Your task to perform on an android device: Open the calendar and show me this week's events? Image 0: 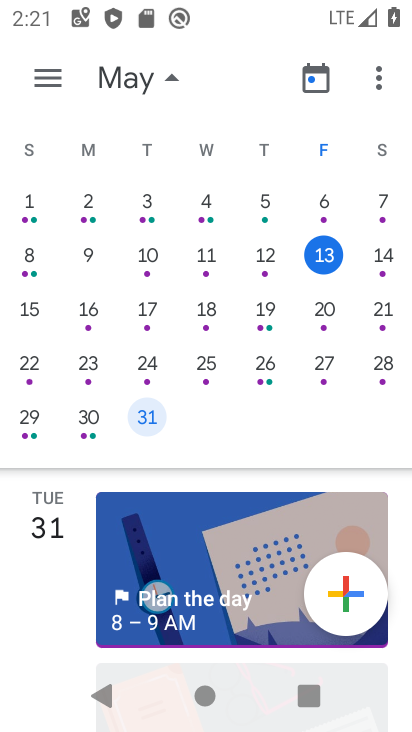
Step 0: press home button
Your task to perform on an android device: Open the calendar and show me this week's events? Image 1: 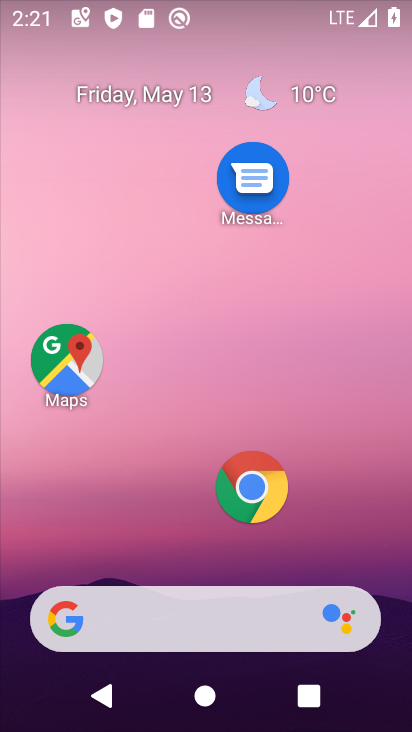
Step 1: drag from (200, 477) to (243, 112)
Your task to perform on an android device: Open the calendar and show me this week's events? Image 2: 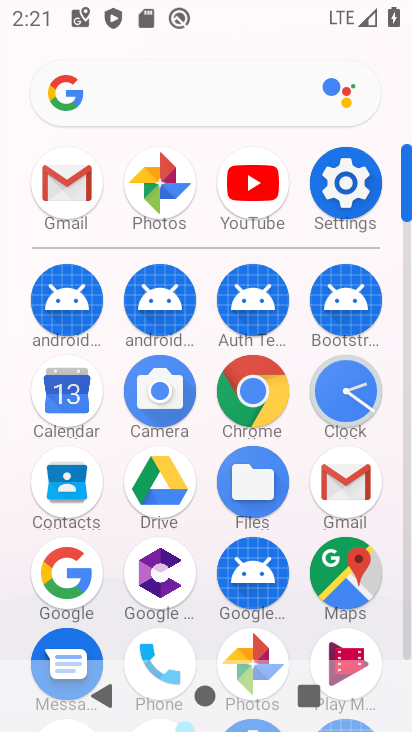
Step 2: click (76, 396)
Your task to perform on an android device: Open the calendar and show me this week's events? Image 3: 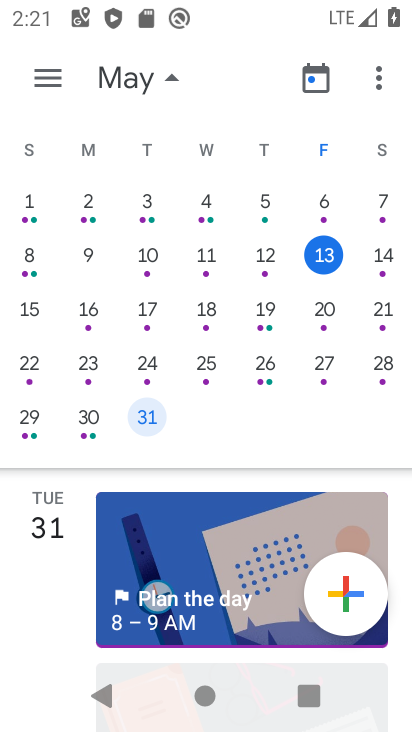
Step 3: click (30, 317)
Your task to perform on an android device: Open the calendar and show me this week's events? Image 4: 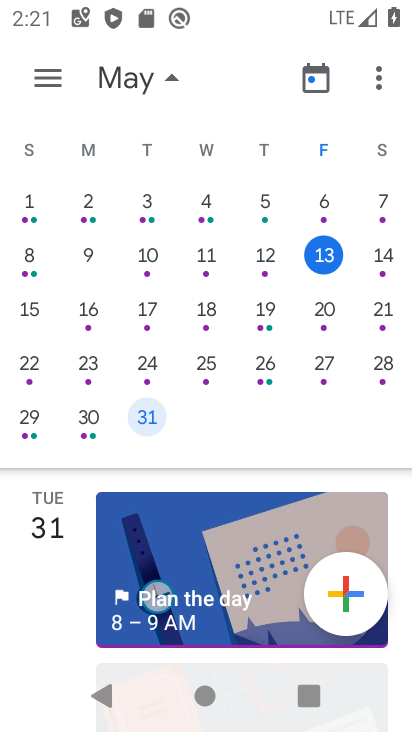
Step 4: click (85, 306)
Your task to perform on an android device: Open the calendar and show me this week's events? Image 5: 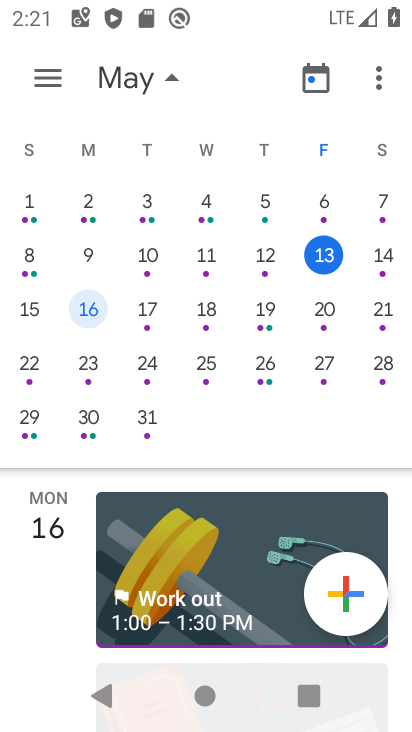
Step 5: click (143, 313)
Your task to perform on an android device: Open the calendar and show me this week's events? Image 6: 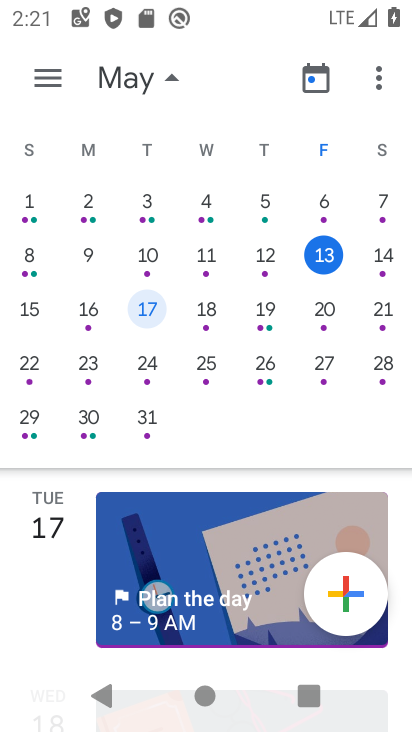
Step 6: click (192, 316)
Your task to perform on an android device: Open the calendar and show me this week's events? Image 7: 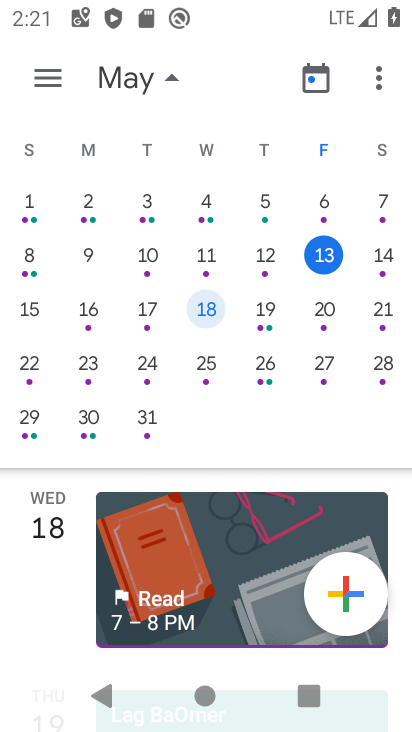
Step 7: click (268, 304)
Your task to perform on an android device: Open the calendar and show me this week's events? Image 8: 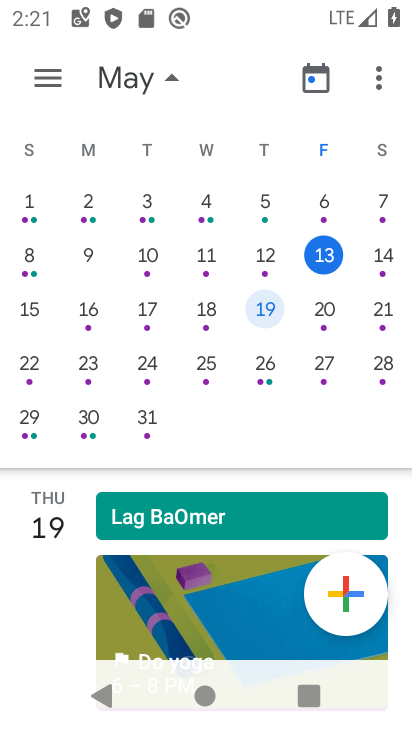
Step 8: click (337, 302)
Your task to perform on an android device: Open the calendar and show me this week's events? Image 9: 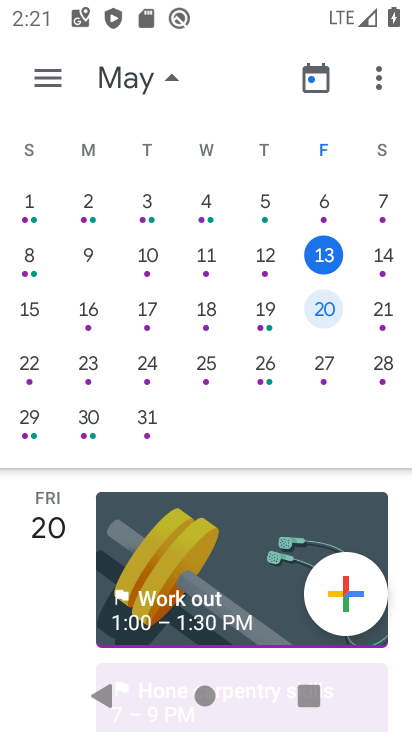
Step 9: click (386, 306)
Your task to perform on an android device: Open the calendar and show me this week's events? Image 10: 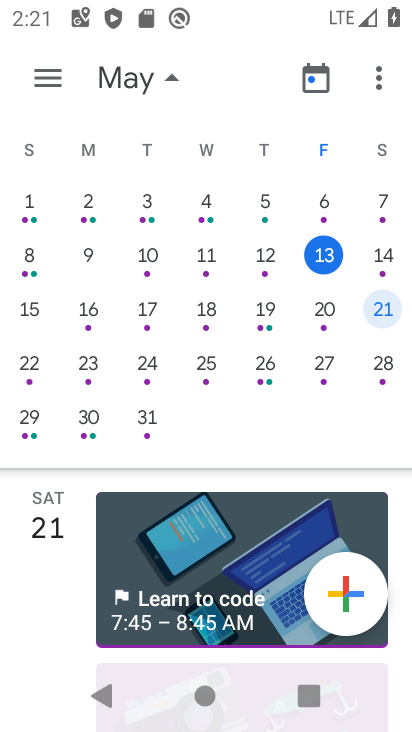
Step 10: task complete